Your task to perform on an android device: open app "PUBG MOBILE" Image 0: 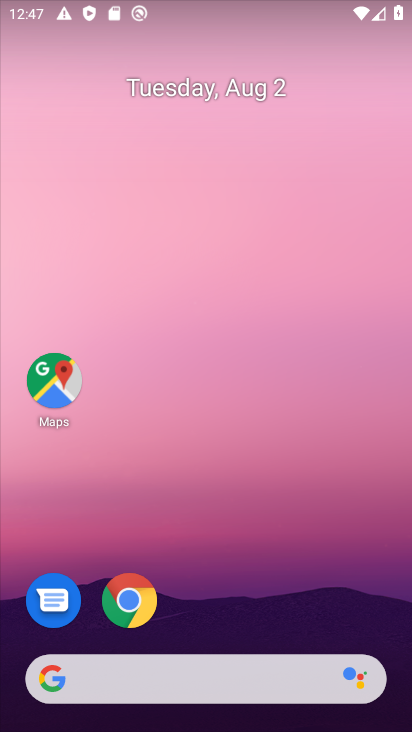
Step 0: press home button
Your task to perform on an android device: open app "PUBG MOBILE" Image 1: 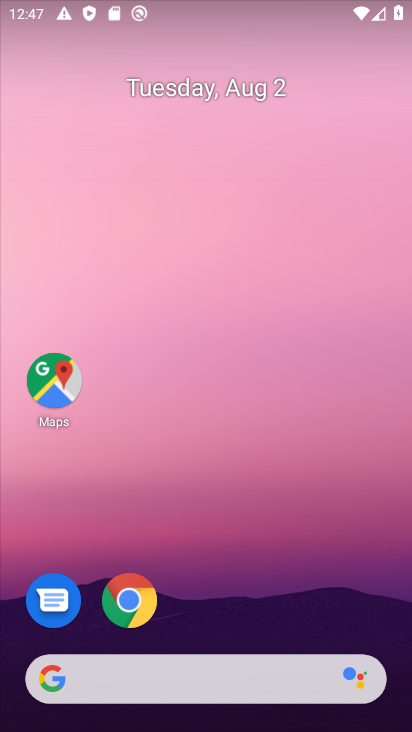
Step 1: drag from (197, 602) to (244, 0)
Your task to perform on an android device: open app "PUBG MOBILE" Image 2: 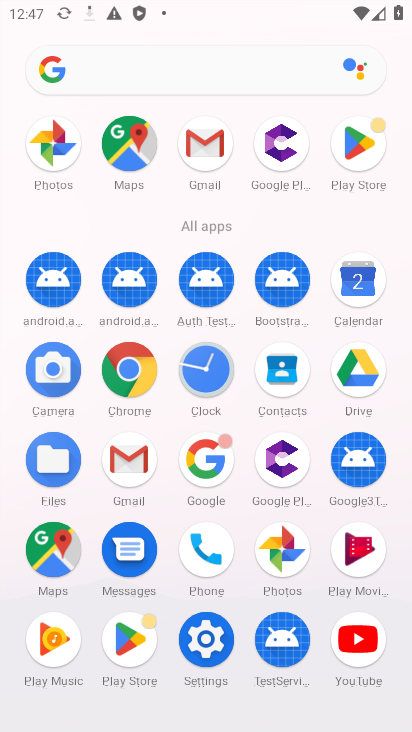
Step 2: click (353, 142)
Your task to perform on an android device: open app "PUBG MOBILE" Image 3: 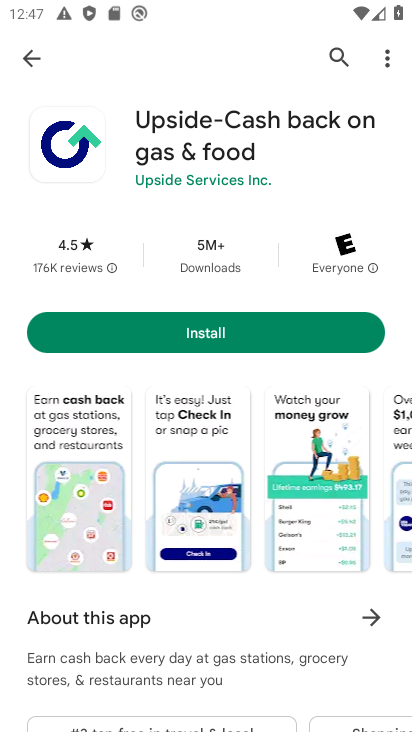
Step 3: click (38, 61)
Your task to perform on an android device: open app "PUBG MOBILE" Image 4: 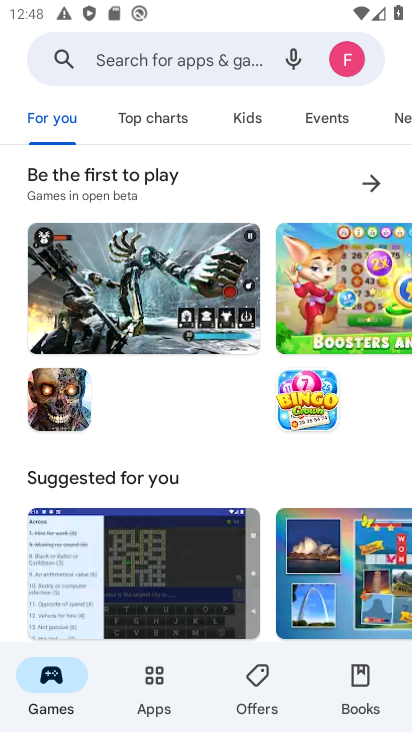
Step 4: click (190, 56)
Your task to perform on an android device: open app "PUBG MOBILE" Image 5: 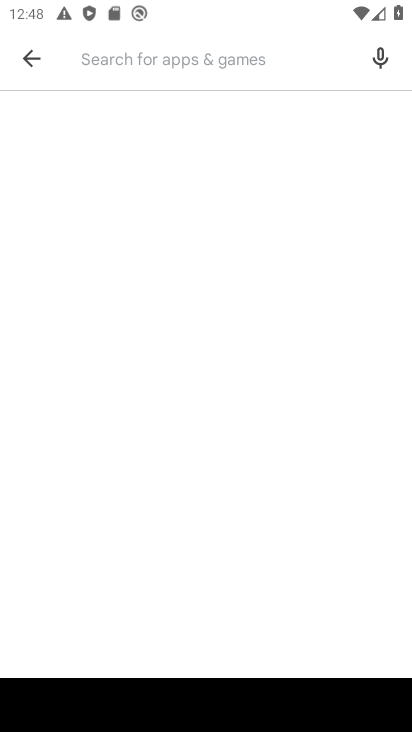
Step 5: type "PUBG MOBILE"
Your task to perform on an android device: open app "PUBG MOBILE" Image 6: 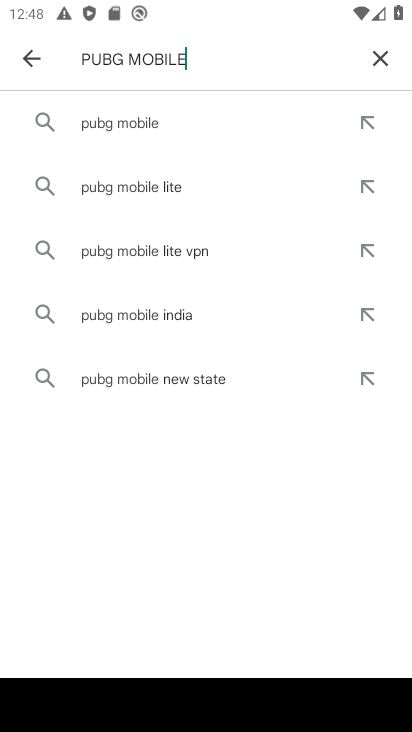
Step 6: click (170, 120)
Your task to perform on an android device: open app "PUBG MOBILE" Image 7: 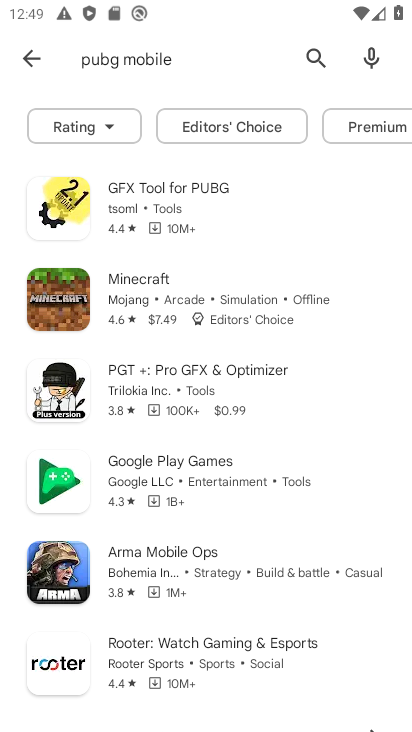
Step 7: task complete